Your task to perform on an android device: toggle wifi Image 0: 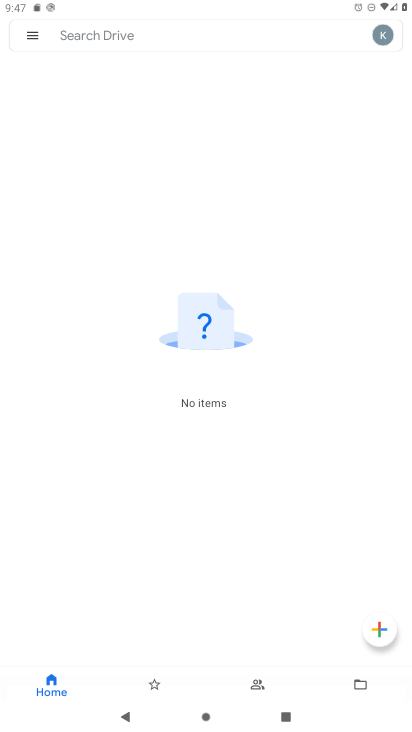
Step 0: press home button
Your task to perform on an android device: toggle wifi Image 1: 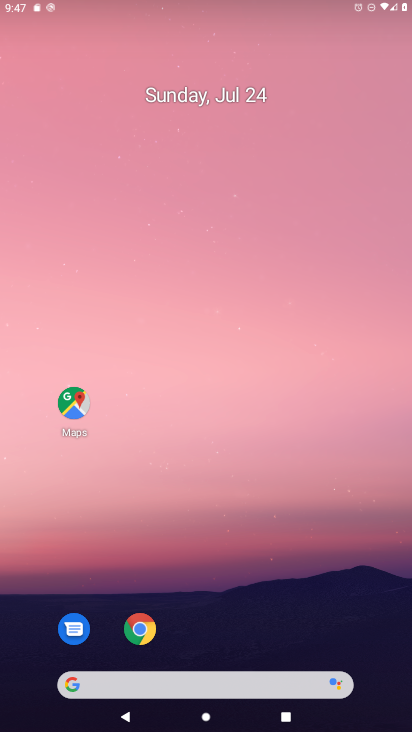
Step 1: drag from (384, 663) to (208, 19)
Your task to perform on an android device: toggle wifi Image 2: 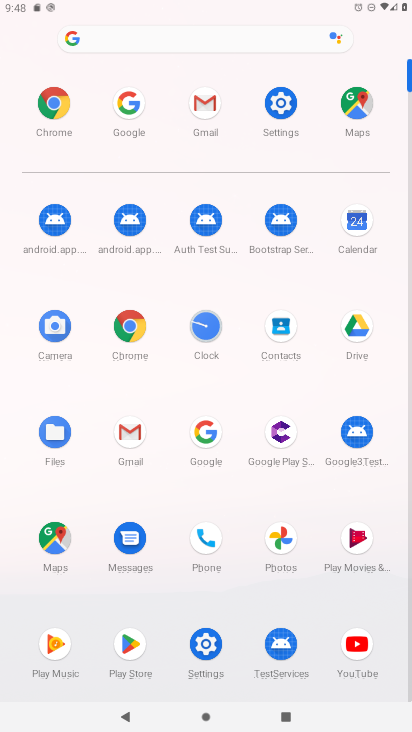
Step 2: click (207, 657)
Your task to perform on an android device: toggle wifi Image 3: 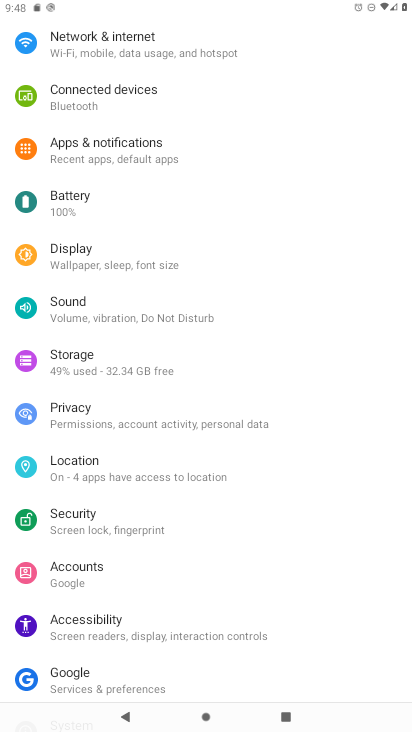
Step 3: click (124, 56)
Your task to perform on an android device: toggle wifi Image 4: 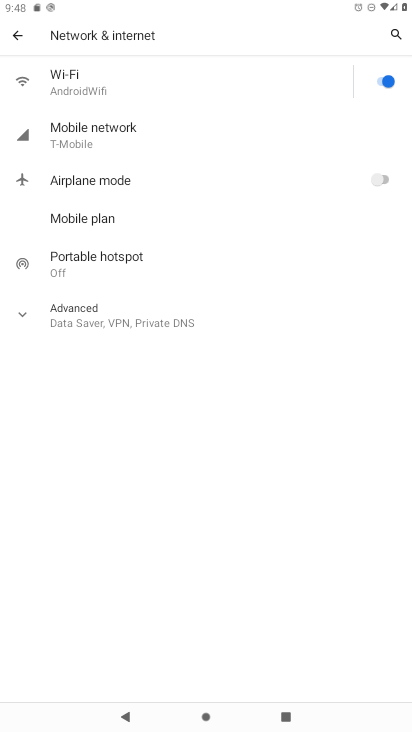
Step 4: click (381, 83)
Your task to perform on an android device: toggle wifi Image 5: 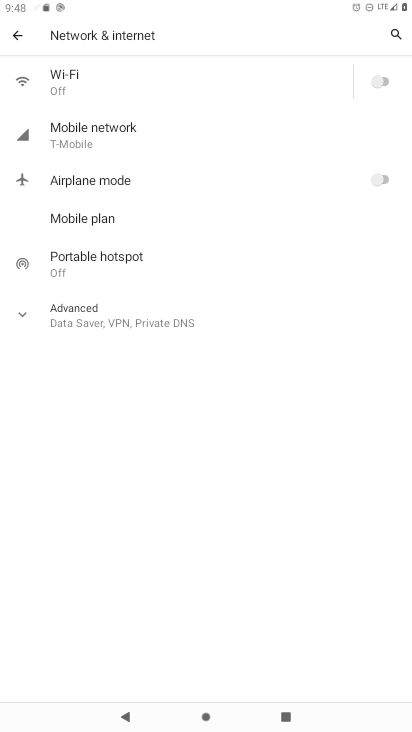
Step 5: task complete